Your task to perform on an android device: Open Google Chrome and click the shortcut for Amazon.com Image 0: 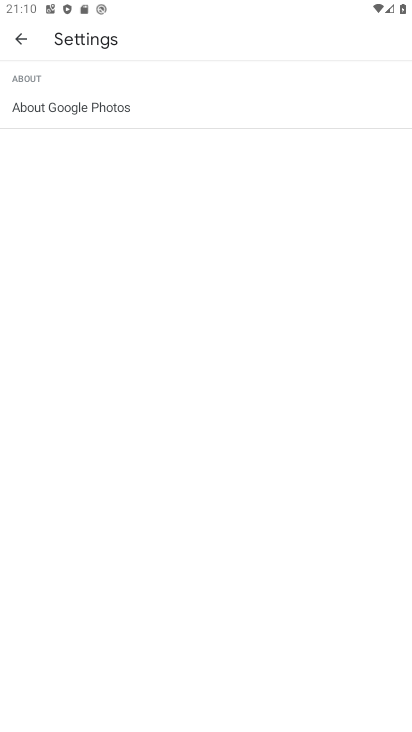
Step 0: press home button
Your task to perform on an android device: Open Google Chrome and click the shortcut for Amazon.com Image 1: 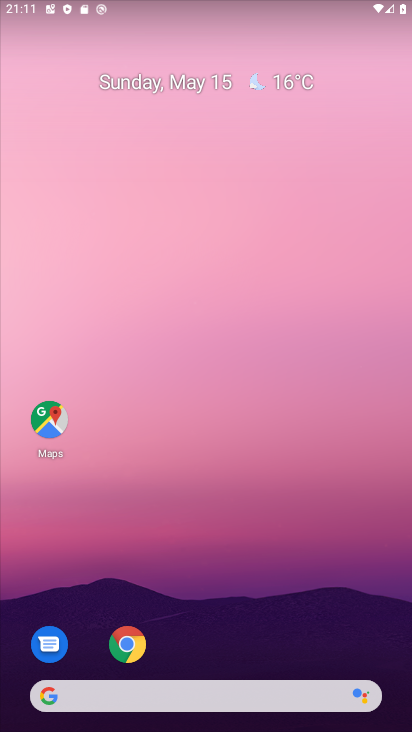
Step 1: click (125, 642)
Your task to perform on an android device: Open Google Chrome and click the shortcut for Amazon.com Image 2: 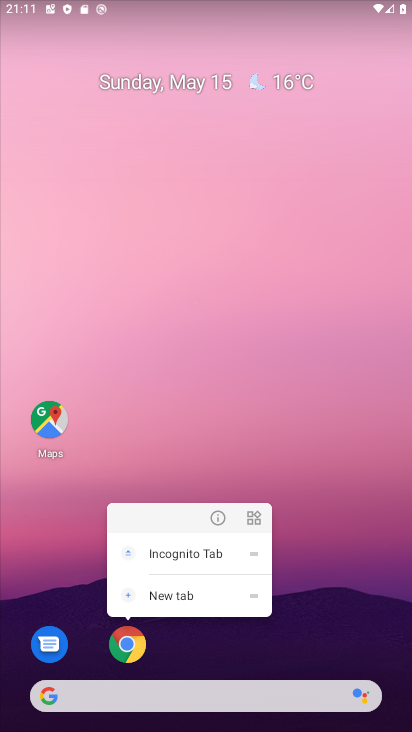
Step 2: click (124, 655)
Your task to perform on an android device: Open Google Chrome and click the shortcut for Amazon.com Image 3: 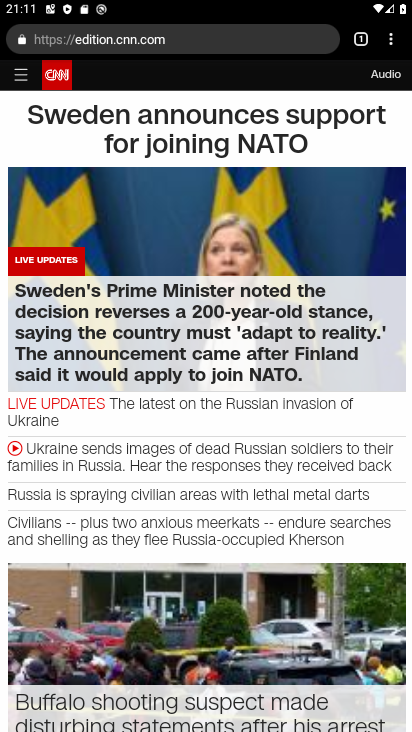
Step 3: click (365, 32)
Your task to perform on an android device: Open Google Chrome and click the shortcut for Amazon.com Image 4: 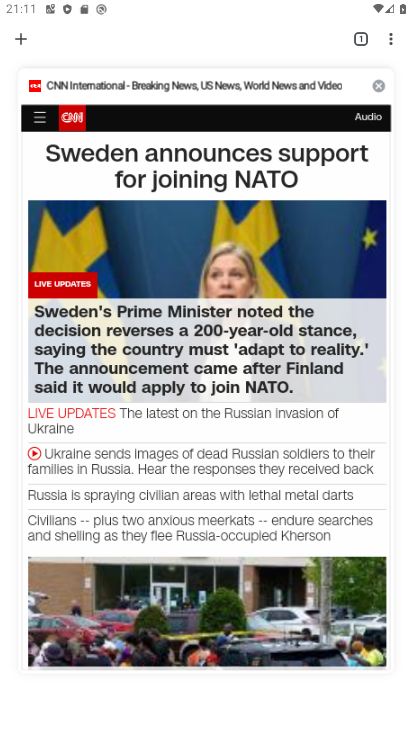
Step 4: click (28, 38)
Your task to perform on an android device: Open Google Chrome and click the shortcut for Amazon.com Image 5: 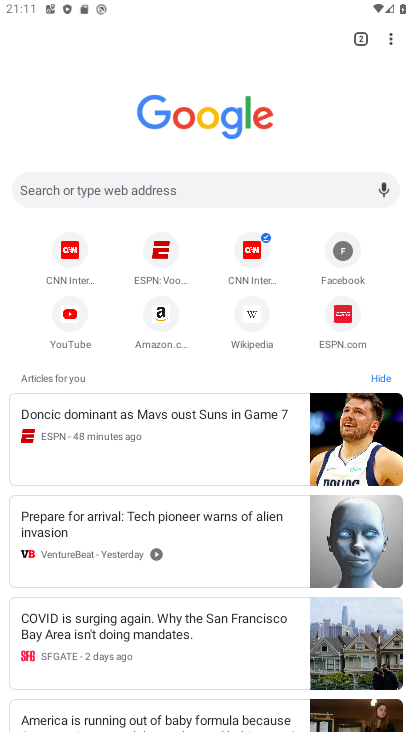
Step 5: click (158, 316)
Your task to perform on an android device: Open Google Chrome and click the shortcut for Amazon.com Image 6: 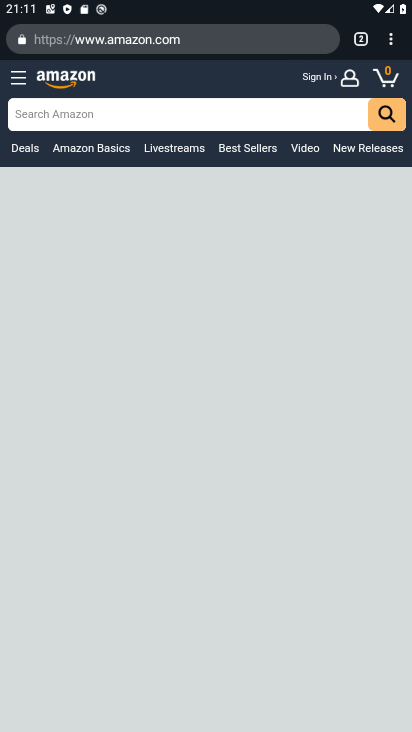
Step 6: task complete